Your task to perform on an android device: View the shopping cart on amazon. Search for "jbl flip 4" on amazon, select the first entry, and add it to the cart. Image 0: 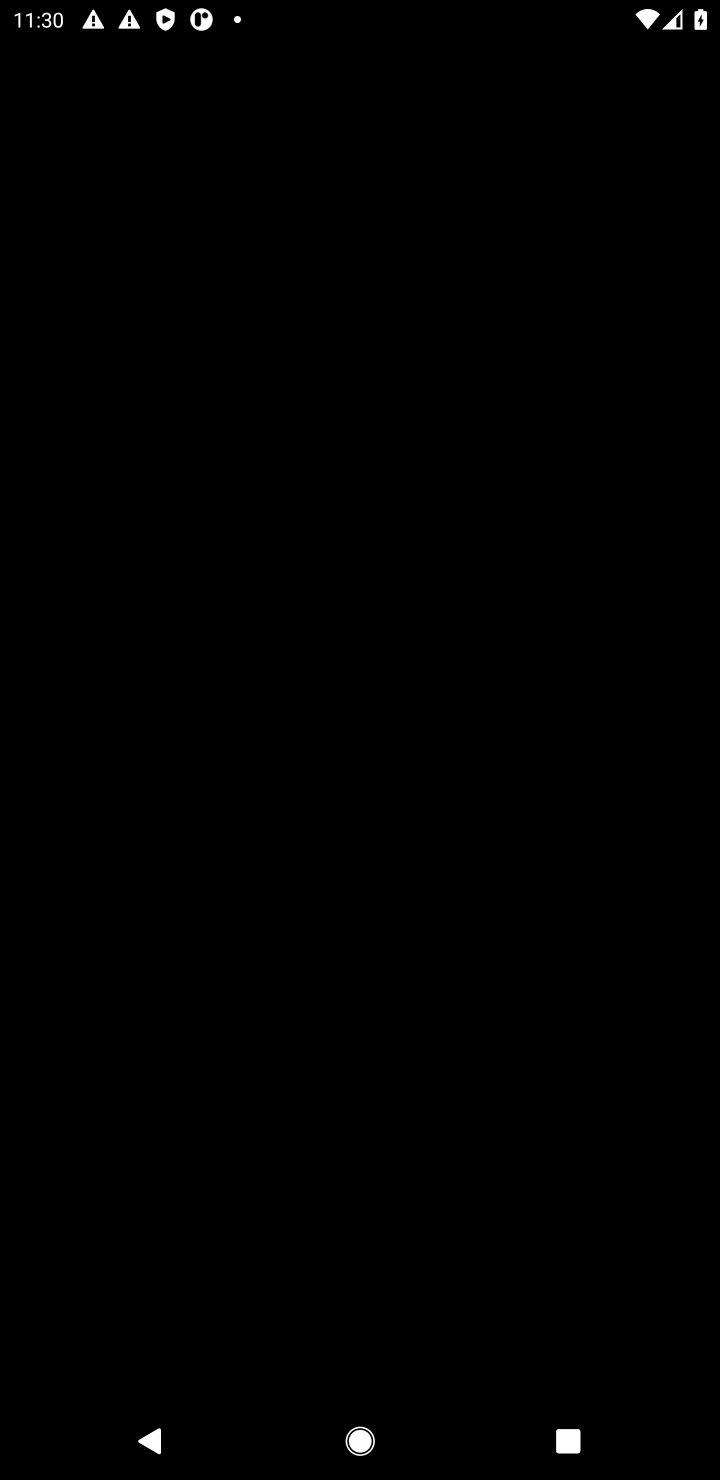
Step 0: press home button
Your task to perform on an android device: View the shopping cart on amazon. Search for "jbl flip 4" on amazon, select the first entry, and add it to the cart. Image 1: 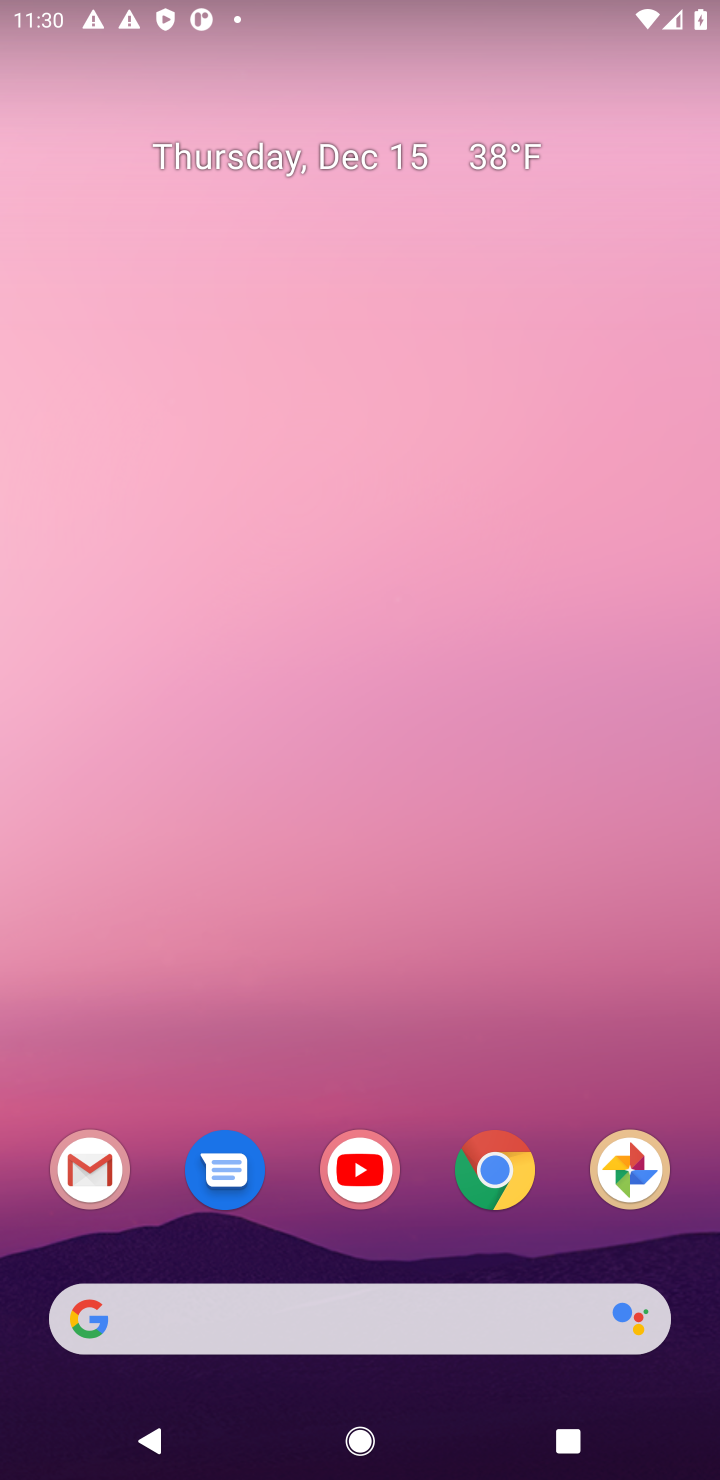
Step 1: click (499, 1171)
Your task to perform on an android device: View the shopping cart on amazon. Search for "jbl flip 4" on amazon, select the first entry, and add it to the cart. Image 2: 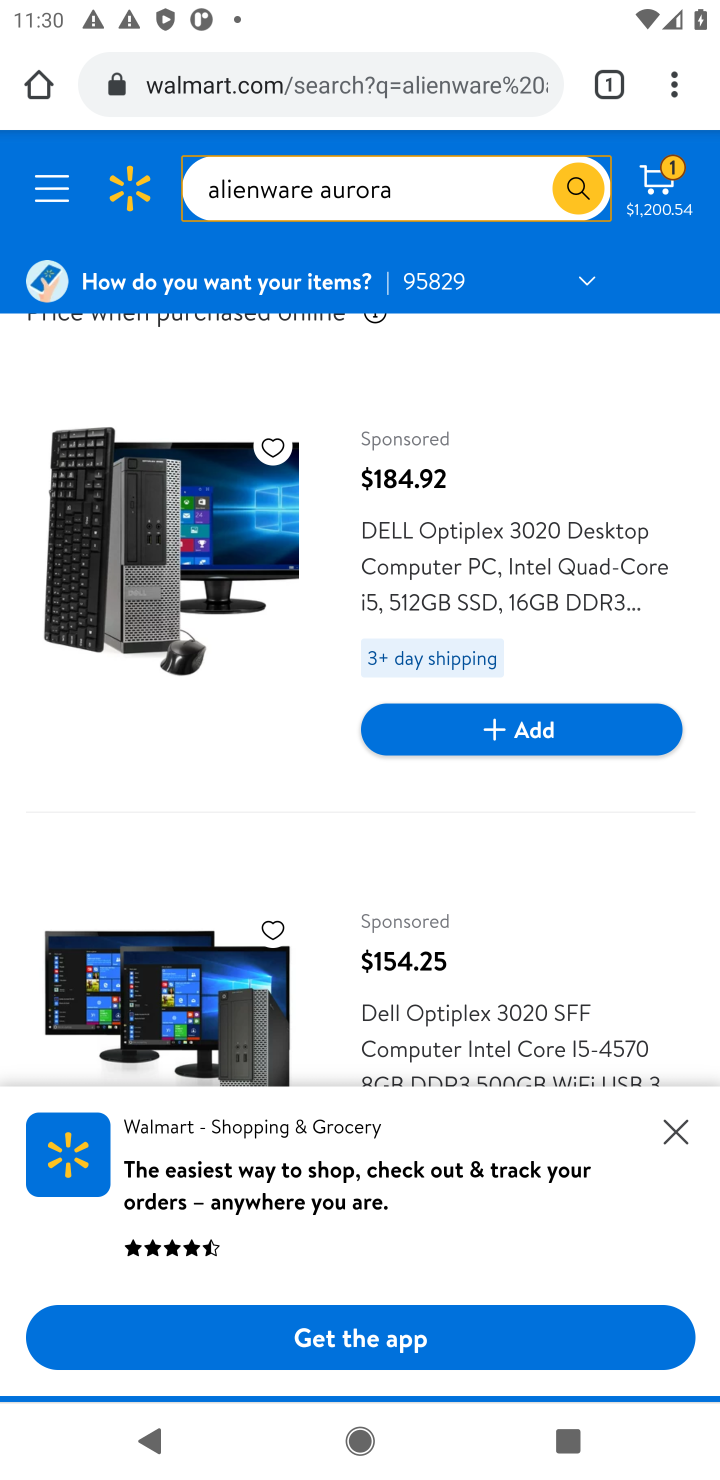
Step 2: click (283, 85)
Your task to perform on an android device: View the shopping cart on amazon. Search for "jbl flip 4" on amazon, select the first entry, and add it to the cart. Image 3: 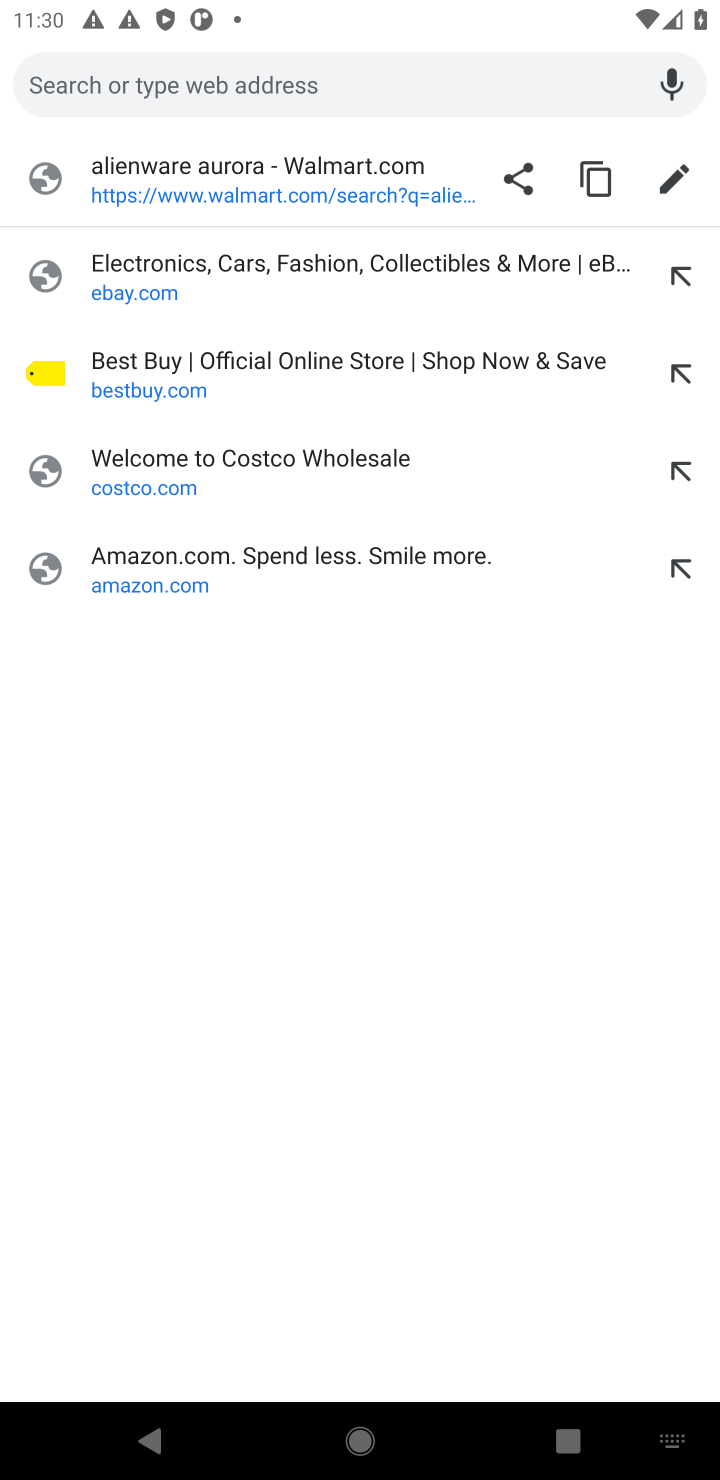
Step 3: click (115, 556)
Your task to perform on an android device: View the shopping cart on amazon. Search for "jbl flip 4" on amazon, select the first entry, and add it to the cart. Image 4: 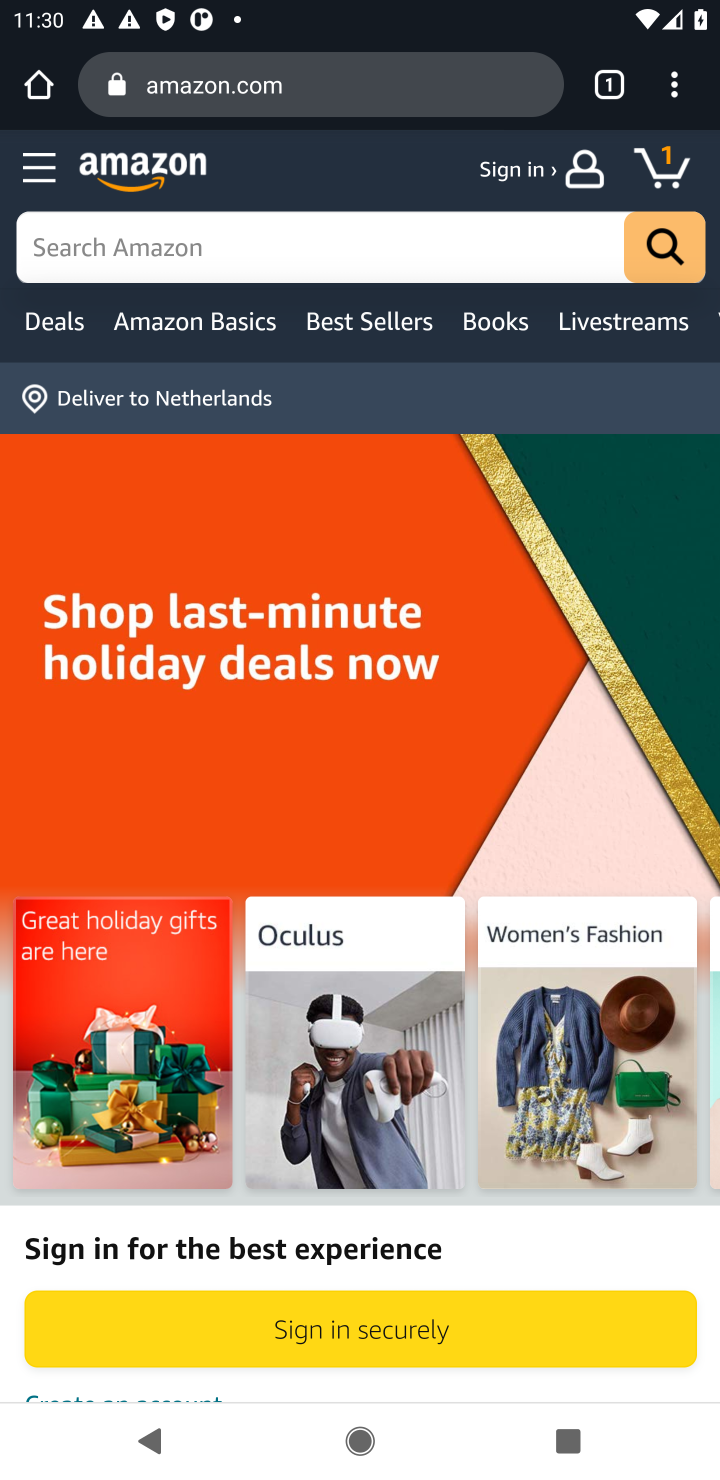
Step 4: click (673, 171)
Your task to perform on an android device: View the shopping cart on amazon. Search for "jbl flip 4" on amazon, select the first entry, and add it to the cart. Image 5: 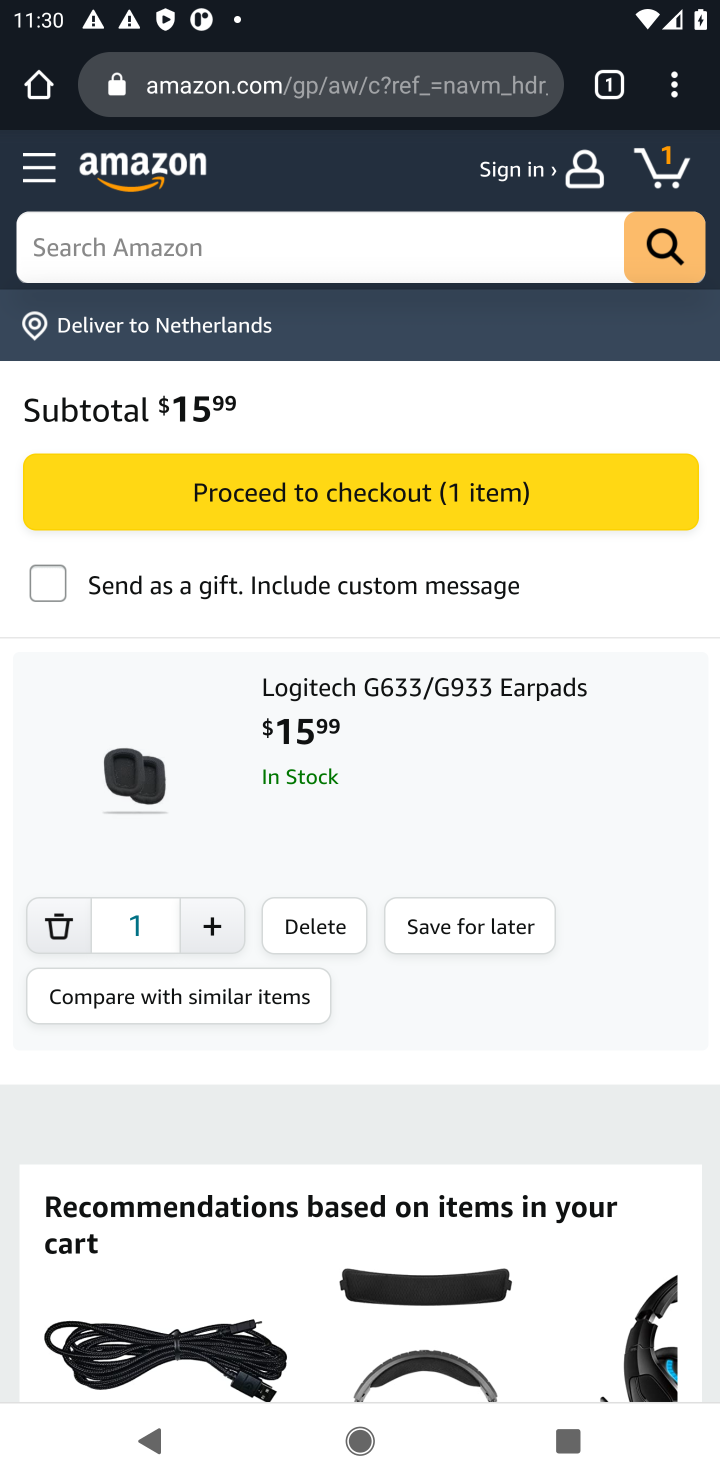
Step 5: click (69, 252)
Your task to perform on an android device: View the shopping cart on amazon. Search for "jbl flip 4" on amazon, select the first entry, and add it to the cart. Image 6: 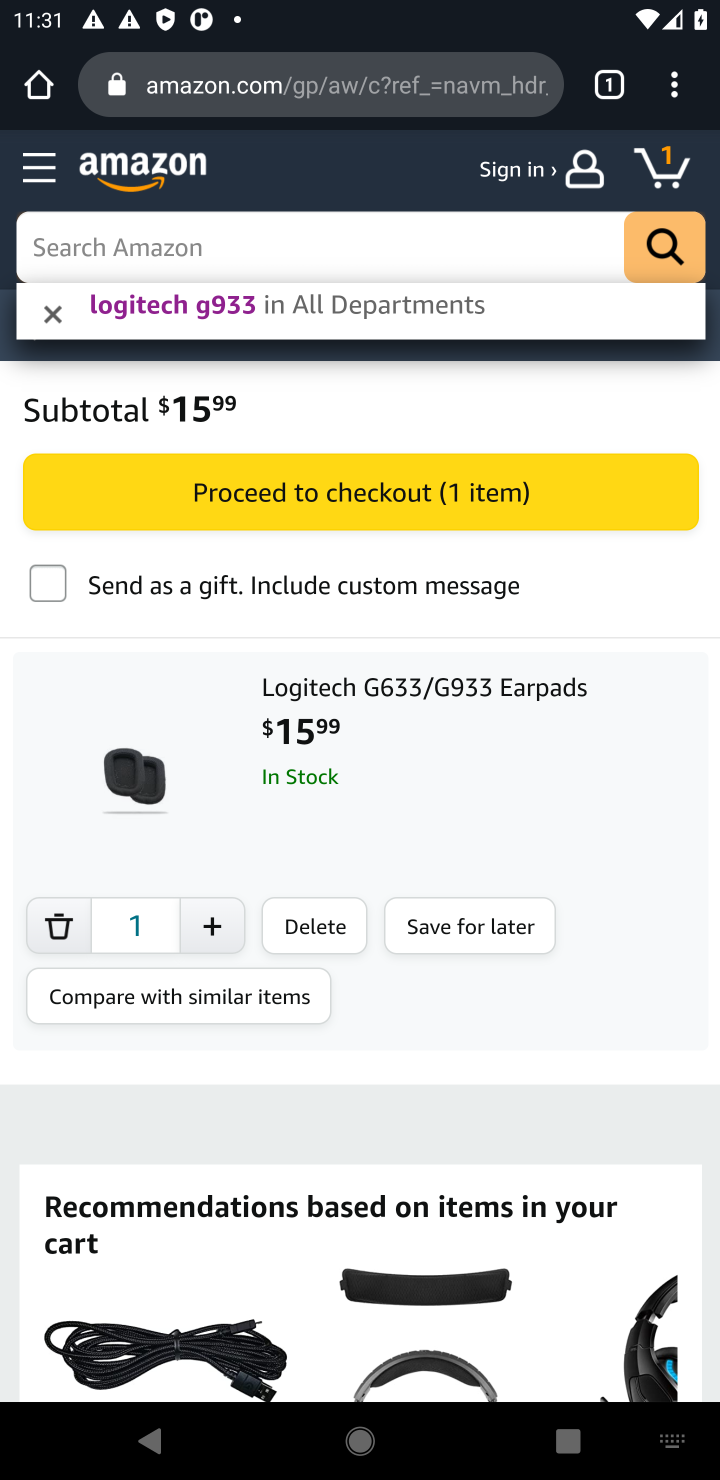
Step 6: type "jbl flip 4"
Your task to perform on an android device: View the shopping cart on amazon. Search for "jbl flip 4" on amazon, select the first entry, and add it to the cart. Image 7: 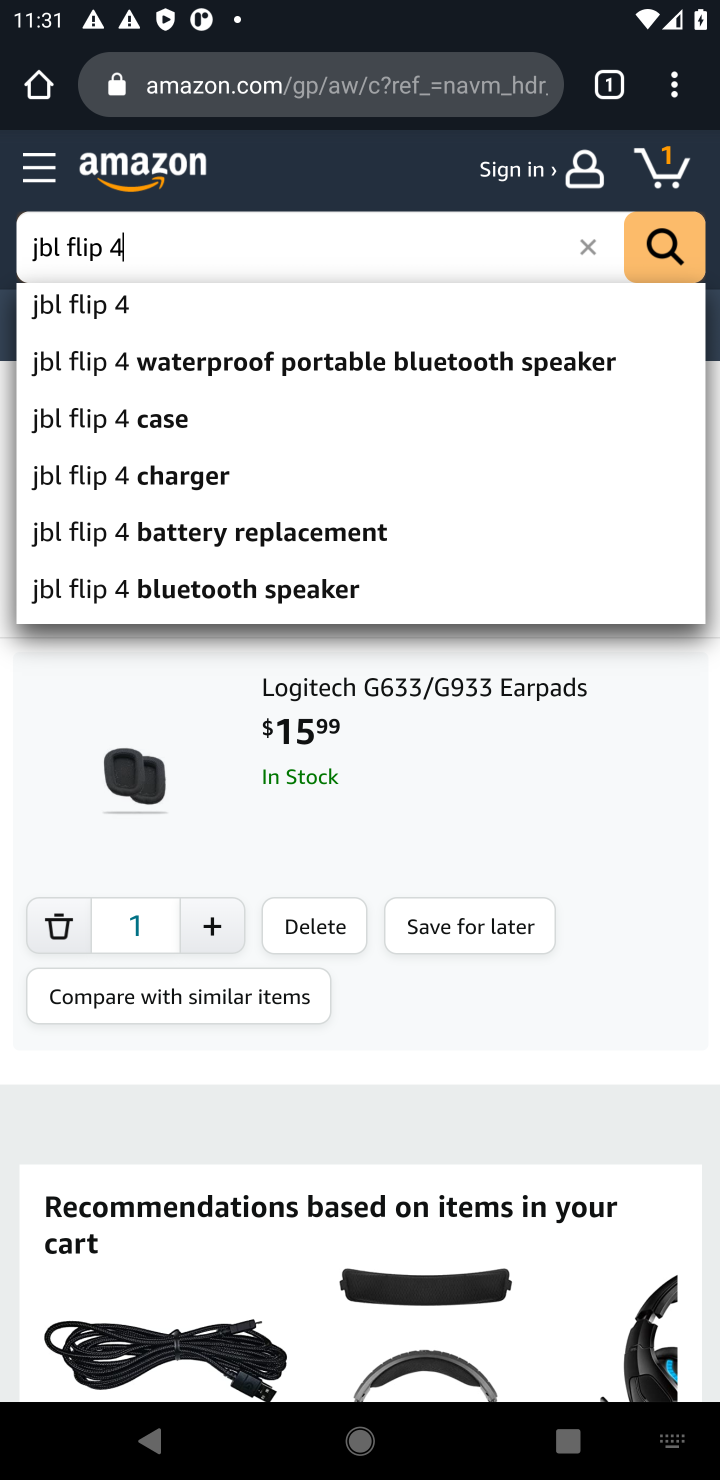
Step 7: click (46, 302)
Your task to perform on an android device: View the shopping cart on amazon. Search for "jbl flip 4" on amazon, select the first entry, and add it to the cart. Image 8: 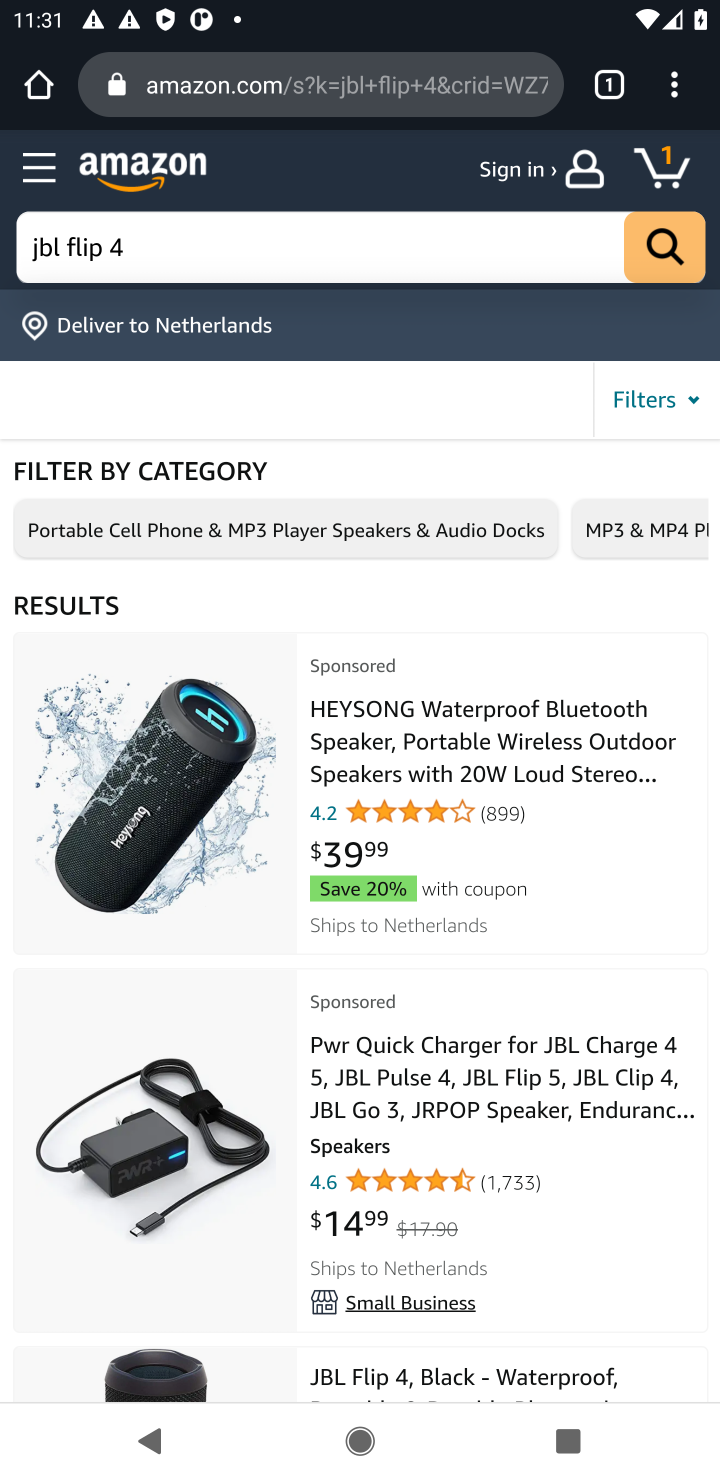
Step 8: task complete